Your task to perform on an android device: Open Maps and search for coffee Image 0: 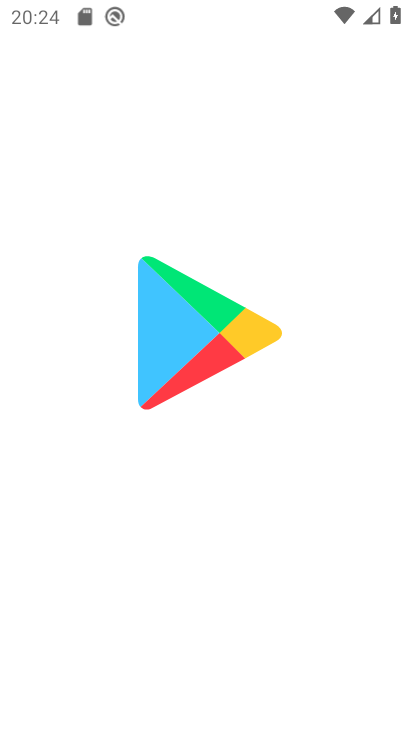
Step 0: drag from (374, 505) to (349, 216)
Your task to perform on an android device: Open Maps and search for coffee Image 1: 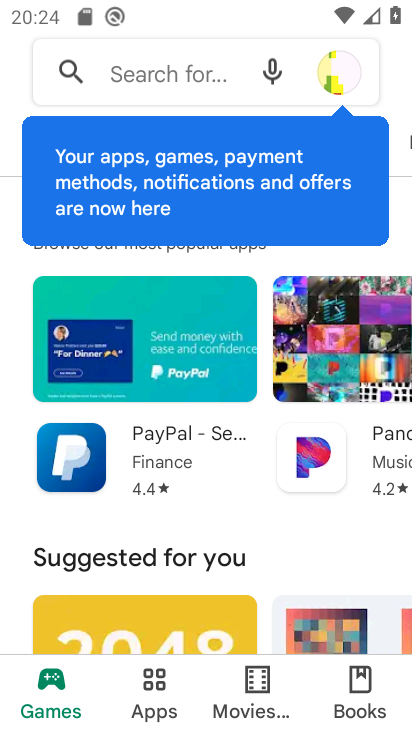
Step 1: press home button
Your task to perform on an android device: Open Maps and search for coffee Image 2: 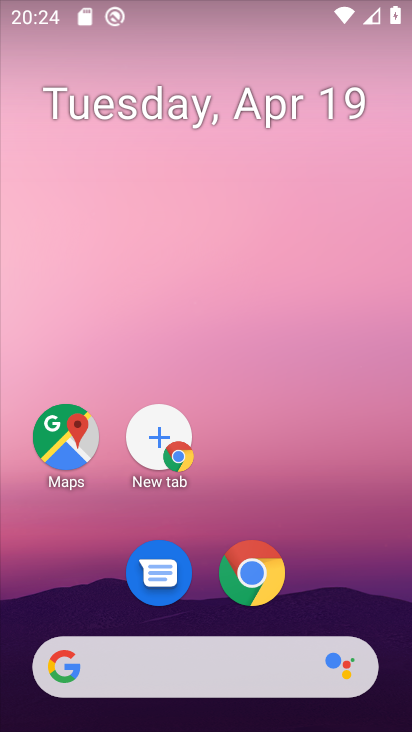
Step 2: click (73, 431)
Your task to perform on an android device: Open Maps and search for coffee Image 3: 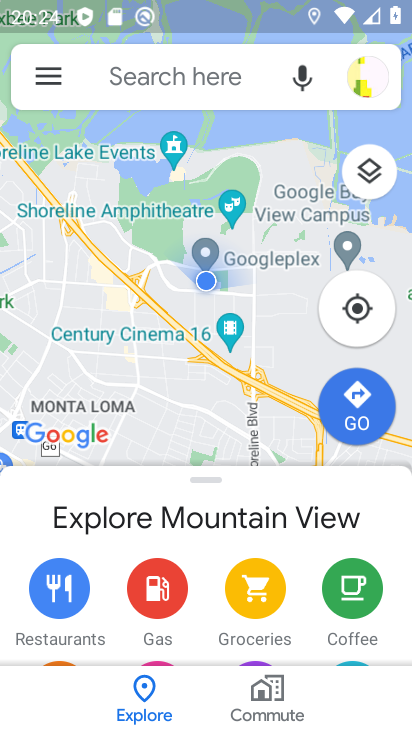
Step 3: click (209, 75)
Your task to perform on an android device: Open Maps and search for coffee Image 4: 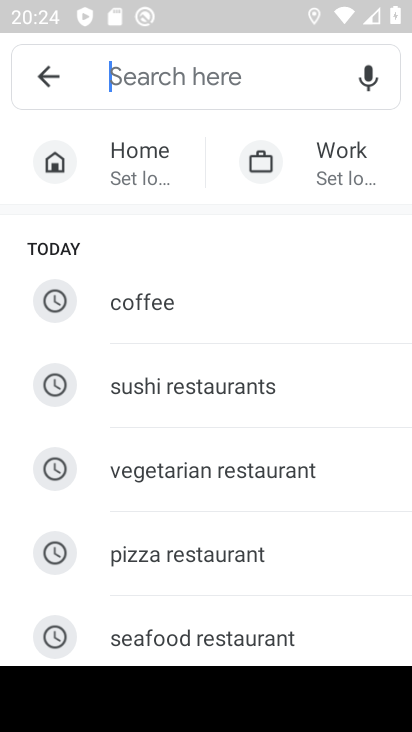
Step 4: type "coffee"
Your task to perform on an android device: Open Maps and search for coffee Image 5: 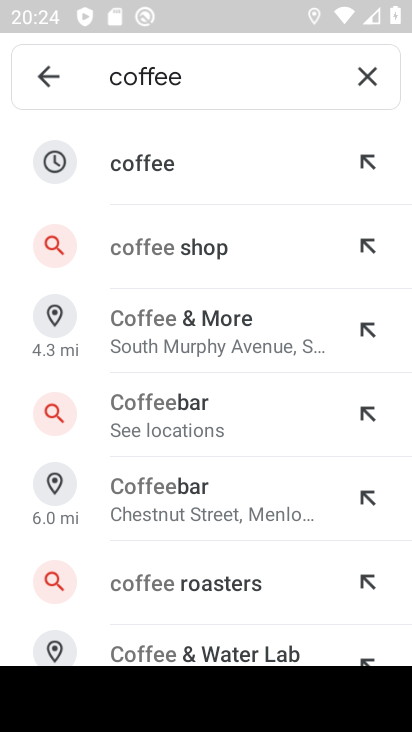
Step 5: click (175, 160)
Your task to perform on an android device: Open Maps and search for coffee Image 6: 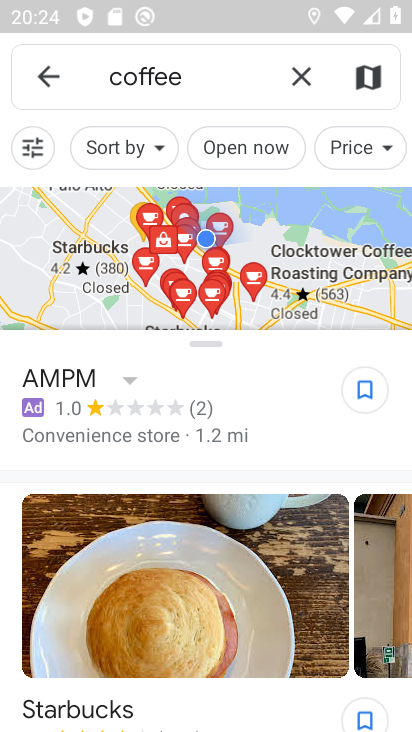
Step 6: task complete